Your task to perform on an android device: visit the assistant section in the google photos Image 0: 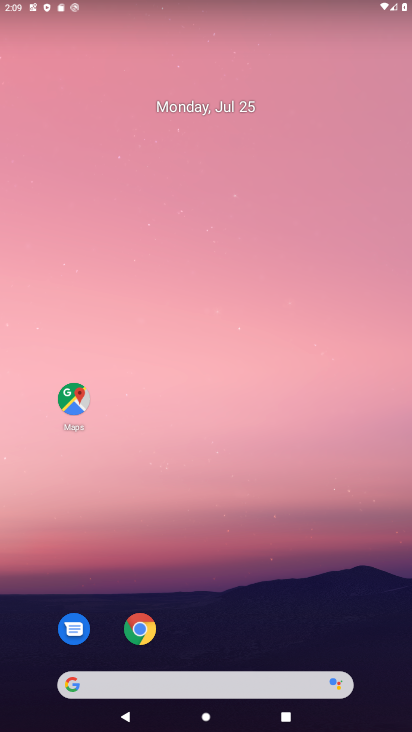
Step 0: drag from (213, 631) to (206, 41)
Your task to perform on an android device: visit the assistant section in the google photos Image 1: 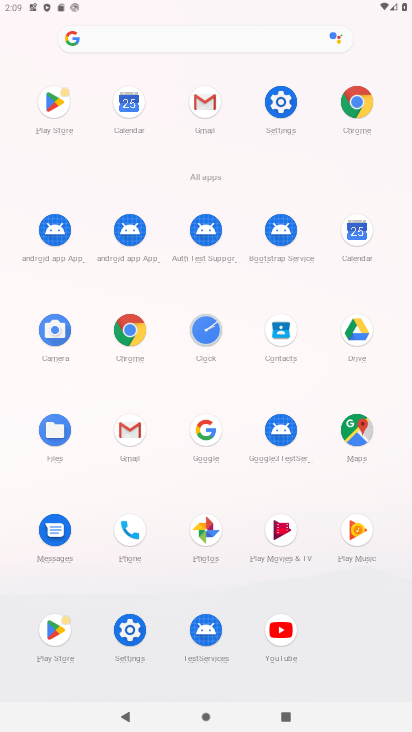
Step 1: click (213, 559)
Your task to perform on an android device: visit the assistant section in the google photos Image 2: 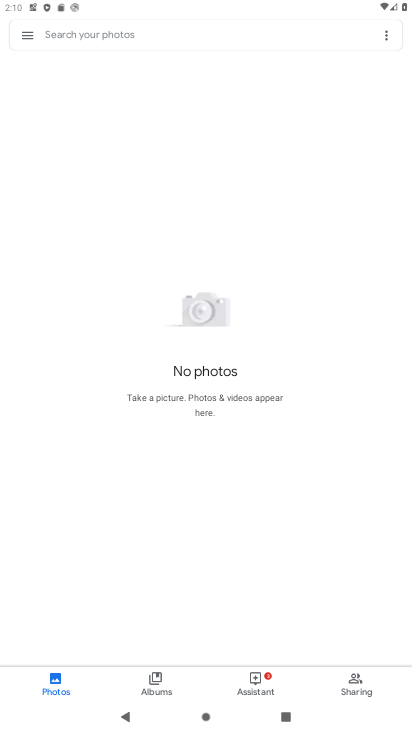
Step 2: click (264, 686)
Your task to perform on an android device: visit the assistant section in the google photos Image 3: 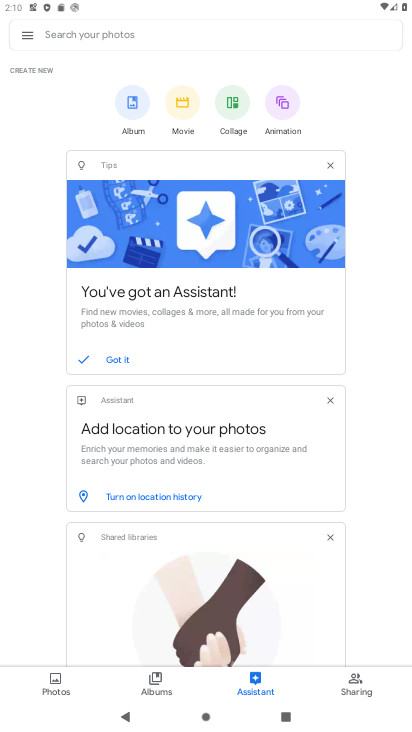
Step 3: task complete